Your task to perform on an android device: empty trash in the gmail app Image 0: 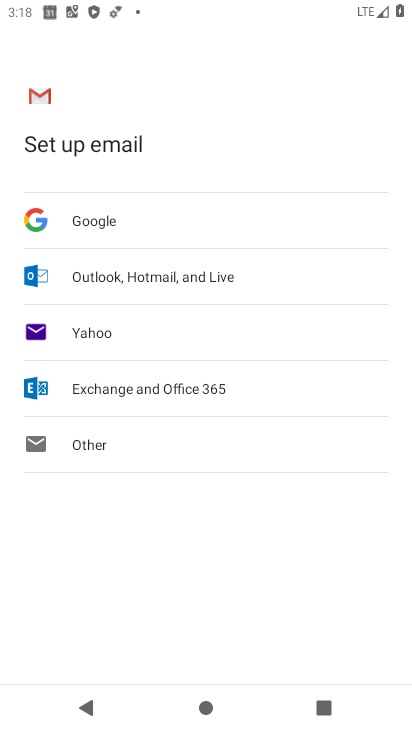
Step 0: press back button
Your task to perform on an android device: empty trash in the gmail app Image 1: 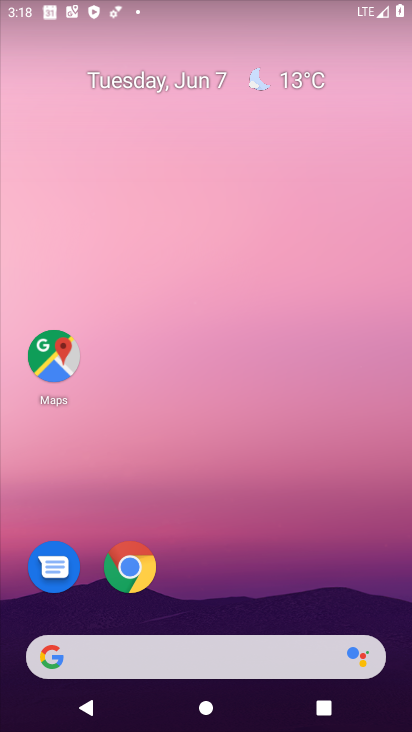
Step 1: drag from (214, 552) to (234, 104)
Your task to perform on an android device: empty trash in the gmail app Image 2: 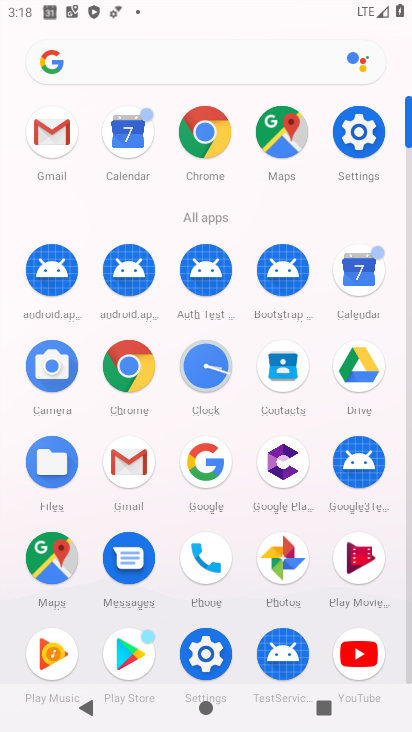
Step 2: click (51, 135)
Your task to perform on an android device: empty trash in the gmail app Image 3: 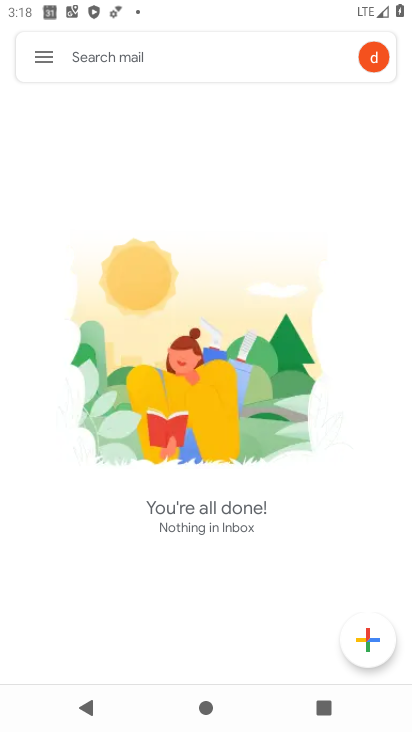
Step 3: click (43, 43)
Your task to perform on an android device: empty trash in the gmail app Image 4: 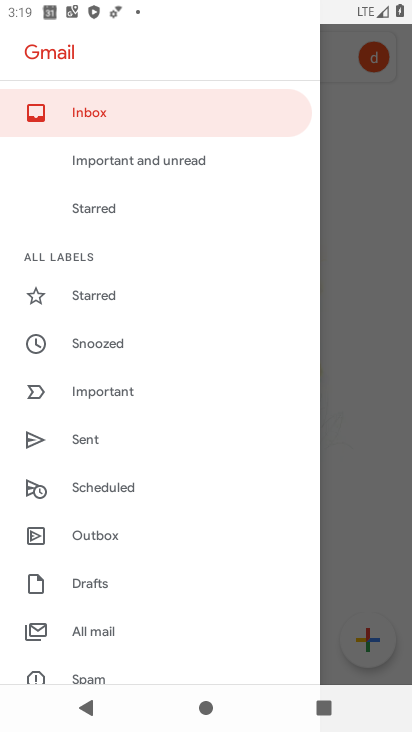
Step 4: drag from (95, 612) to (167, 159)
Your task to perform on an android device: empty trash in the gmail app Image 5: 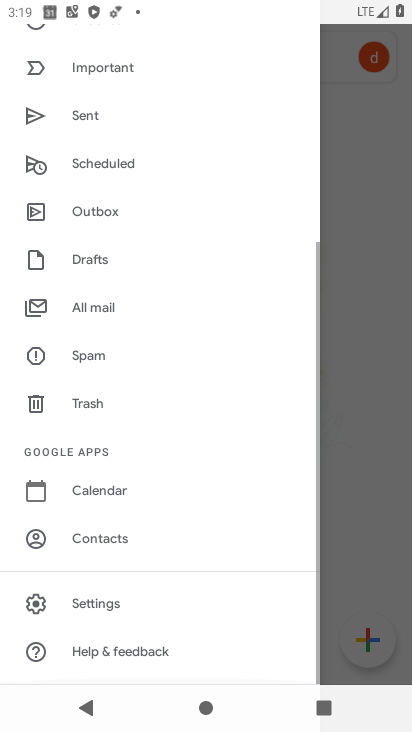
Step 5: click (94, 396)
Your task to perform on an android device: empty trash in the gmail app Image 6: 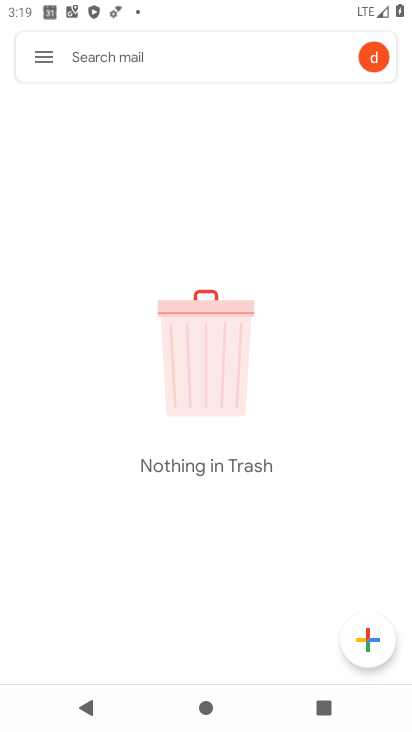
Step 6: task complete